Your task to perform on an android device: Check the news Image 0: 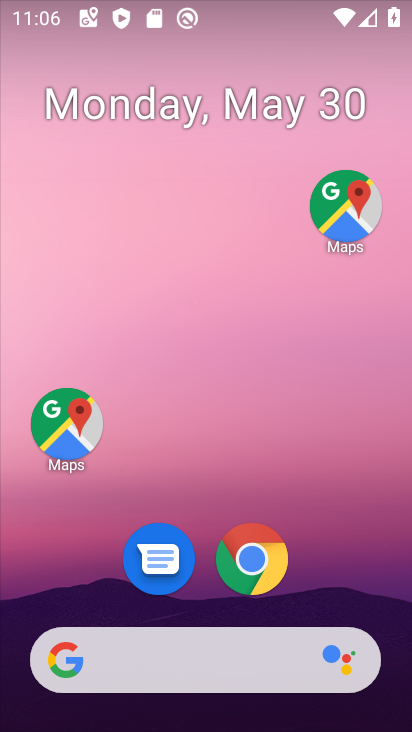
Step 0: click (250, 559)
Your task to perform on an android device: Check the news Image 1: 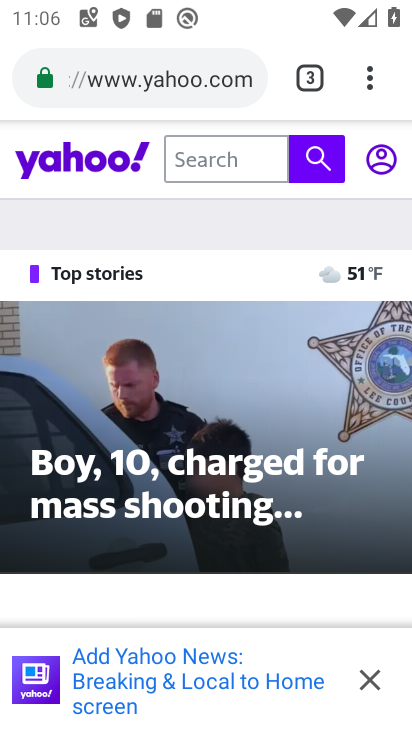
Step 1: click (238, 76)
Your task to perform on an android device: Check the news Image 2: 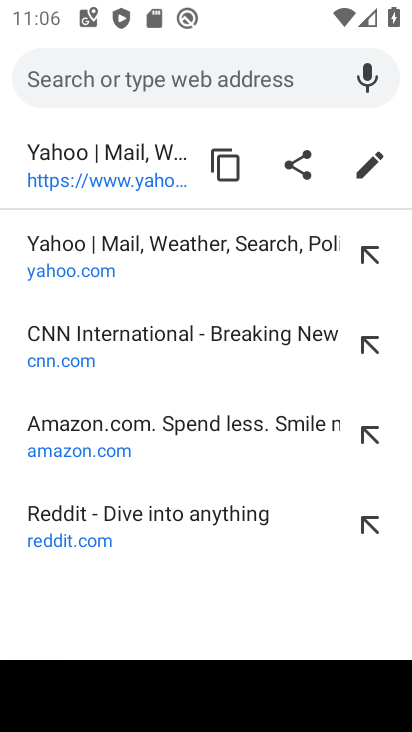
Step 2: type "news"
Your task to perform on an android device: Check the news Image 3: 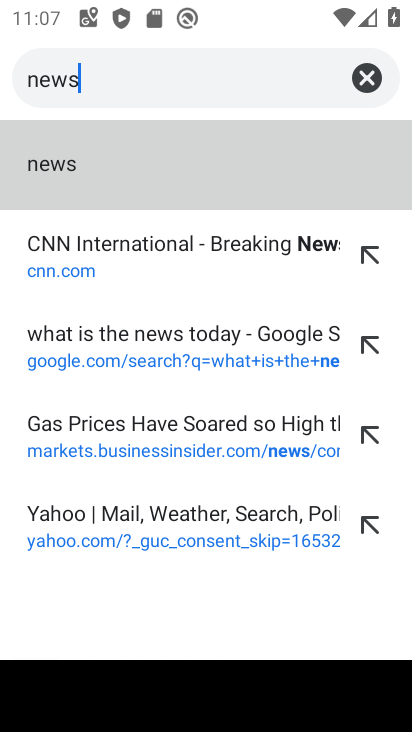
Step 3: click (61, 168)
Your task to perform on an android device: Check the news Image 4: 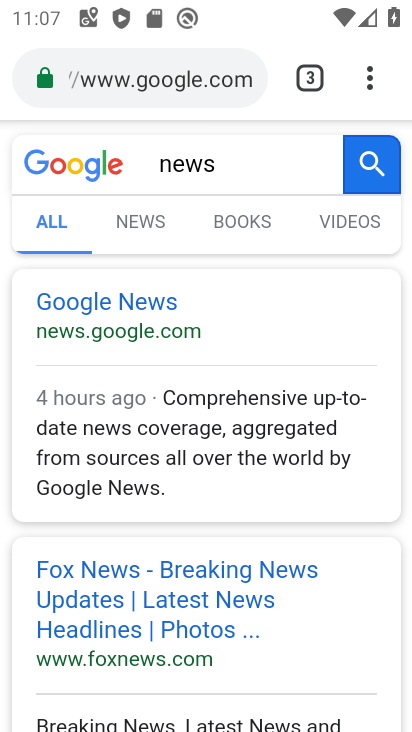
Step 4: click (141, 218)
Your task to perform on an android device: Check the news Image 5: 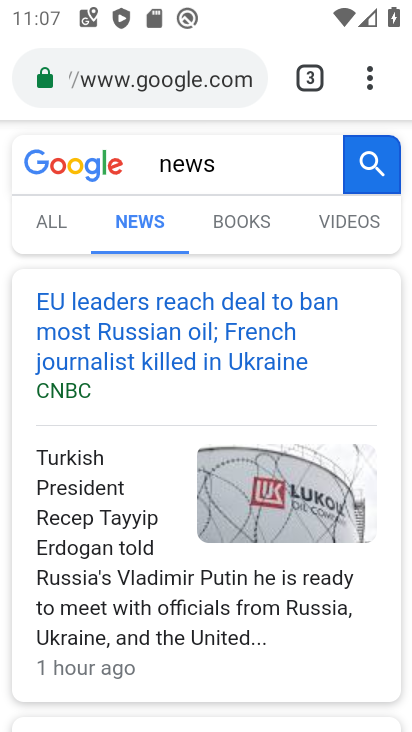
Step 5: task complete